Your task to perform on an android device: Open the stopwatch Image 0: 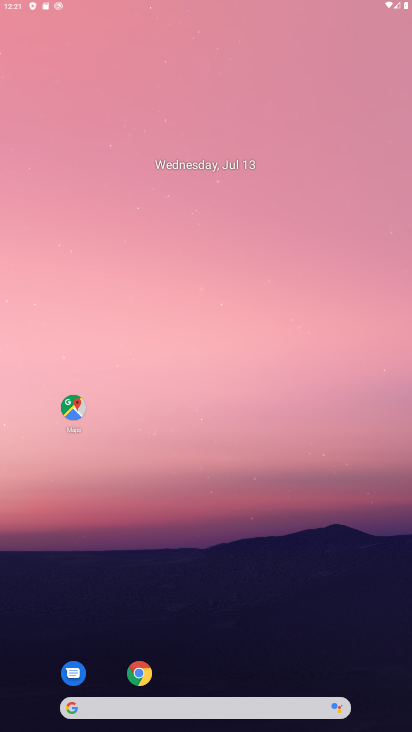
Step 0: drag from (203, 541) to (291, 18)
Your task to perform on an android device: Open the stopwatch Image 1: 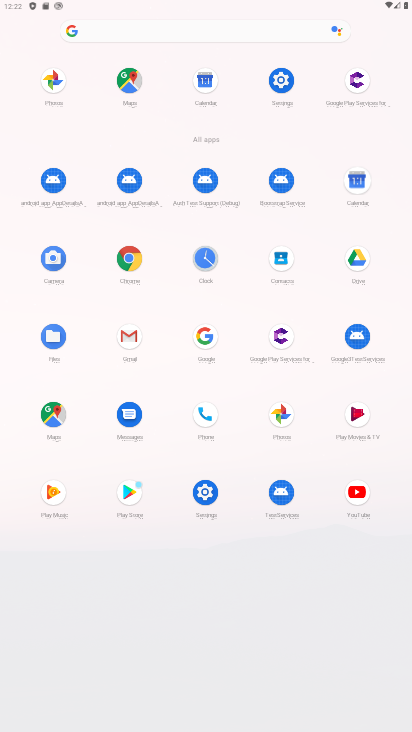
Step 1: click (201, 254)
Your task to perform on an android device: Open the stopwatch Image 2: 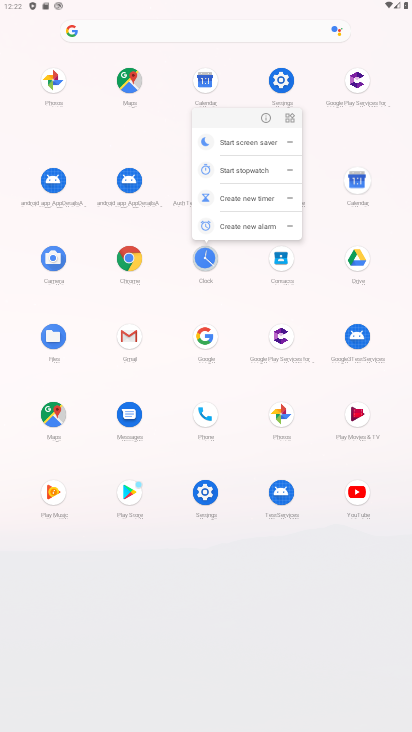
Step 2: click (265, 112)
Your task to perform on an android device: Open the stopwatch Image 3: 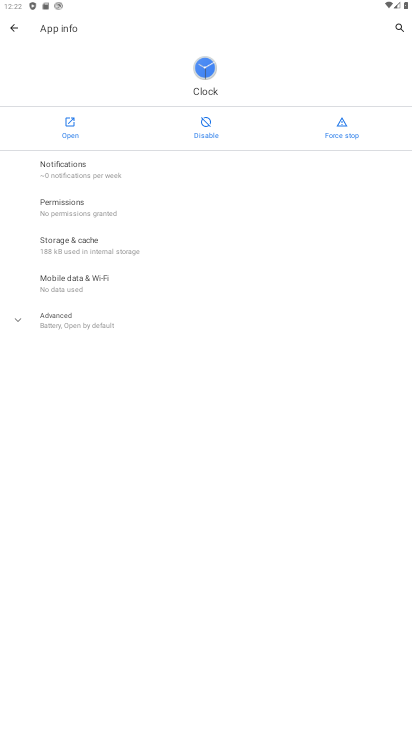
Step 3: click (73, 119)
Your task to perform on an android device: Open the stopwatch Image 4: 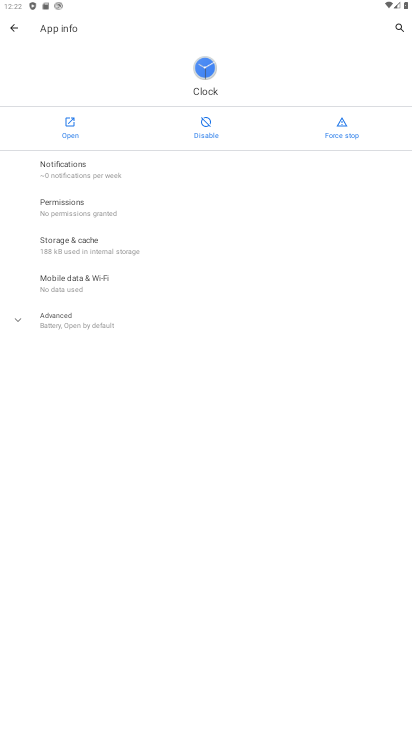
Step 4: click (73, 119)
Your task to perform on an android device: Open the stopwatch Image 5: 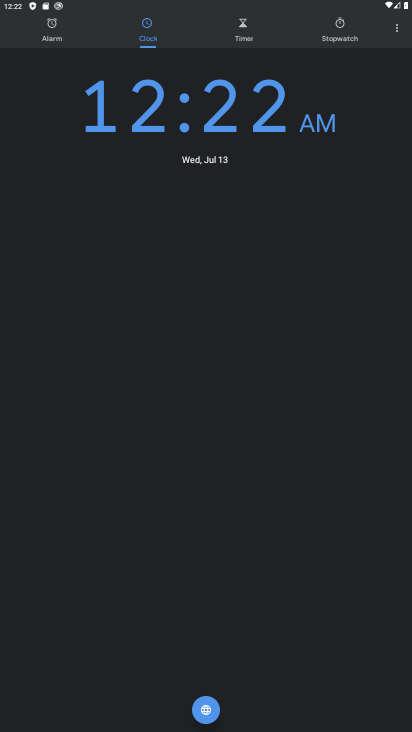
Step 5: click (333, 37)
Your task to perform on an android device: Open the stopwatch Image 6: 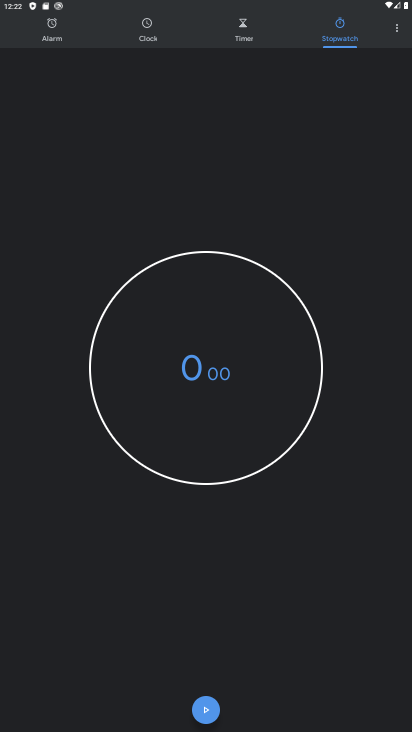
Step 6: click (204, 707)
Your task to perform on an android device: Open the stopwatch Image 7: 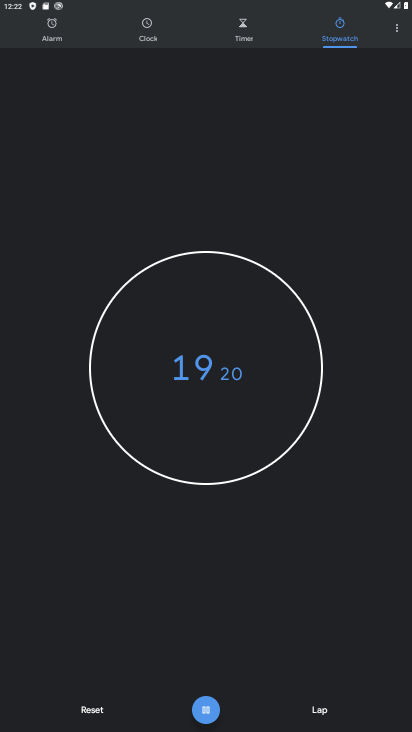
Step 7: task complete